Your task to perform on an android device: Open sound settings Image 0: 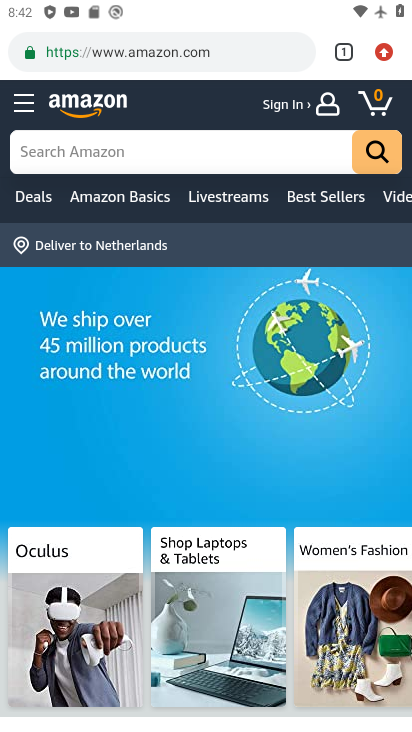
Step 0: press home button
Your task to perform on an android device: Open sound settings Image 1: 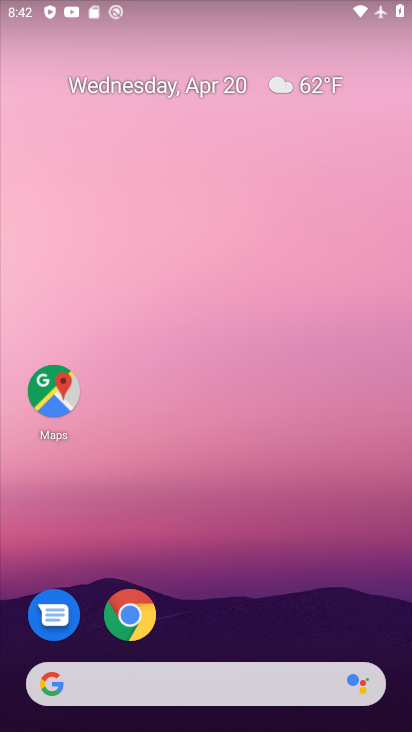
Step 1: drag from (140, 681) to (281, 80)
Your task to perform on an android device: Open sound settings Image 2: 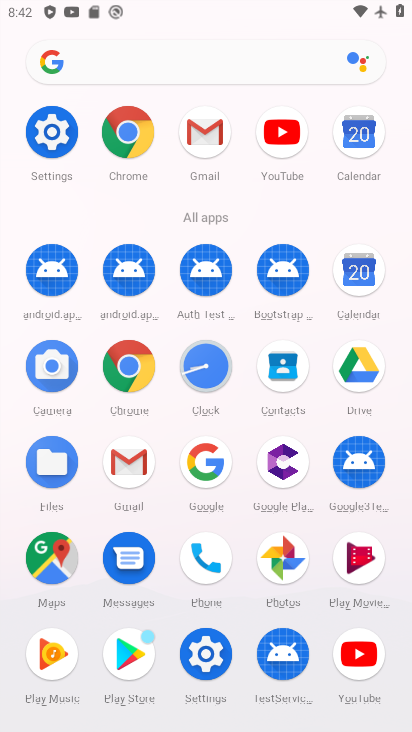
Step 2: click (53, 130)
Your task to perform on an android device: Open sound settings Image 3: 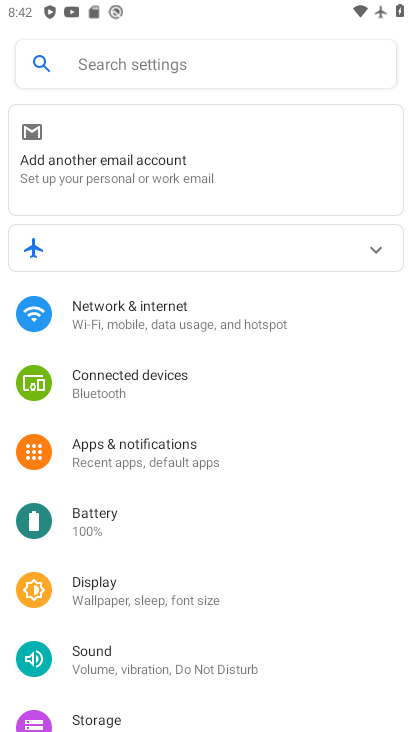
Step 3: click (84, 651)
Your task to perform on an android device: Open sound settings Image 4: 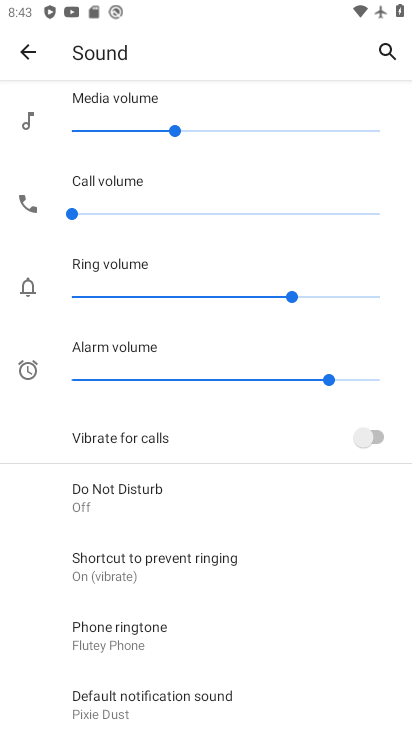
Step 4: task complete